Your task to perform on an android device: Open the Play Movies app and select the watchlist tab. Image 0: 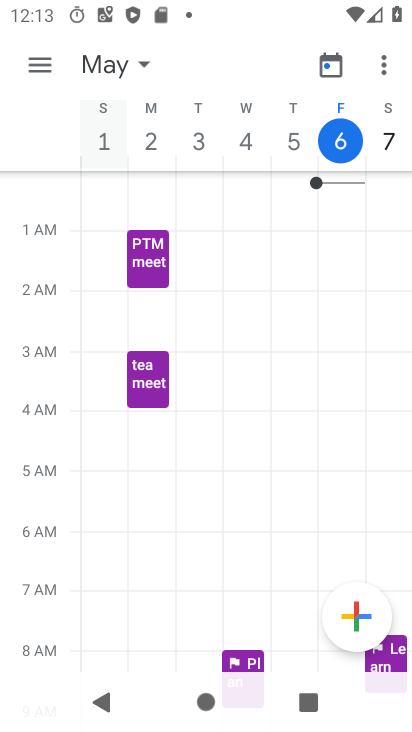
Step 0: press home button
Your task to perform on an android device: Open the Play Movies app and select the watchlist tab. Image 1: 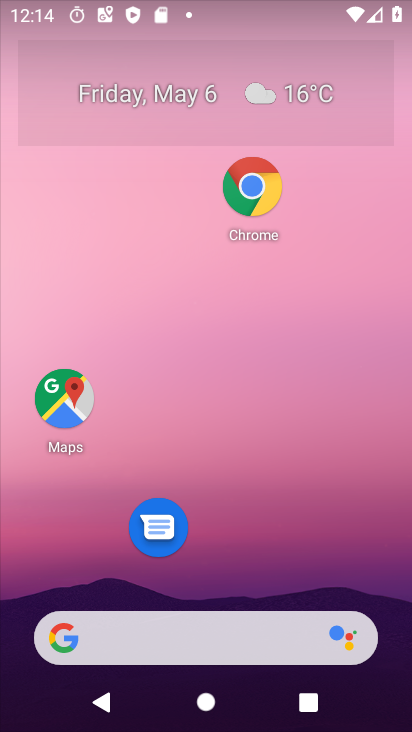
Step 1: drag from (236, 560) to (272, 132)
Your task to perform on an android device: Open the Play Movies app and select the watchlist tab. Image 2: 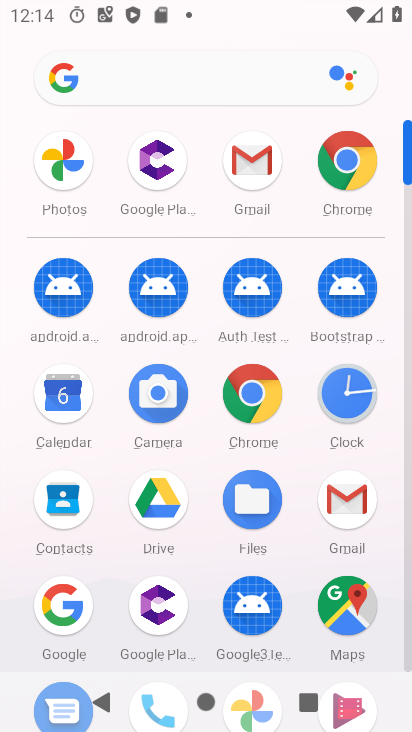
Step 2: drag from (277, 613) to (286, 311)
Your task to perform on an android device: Open the Play Movies app and select the watchlist tab. Image 3: 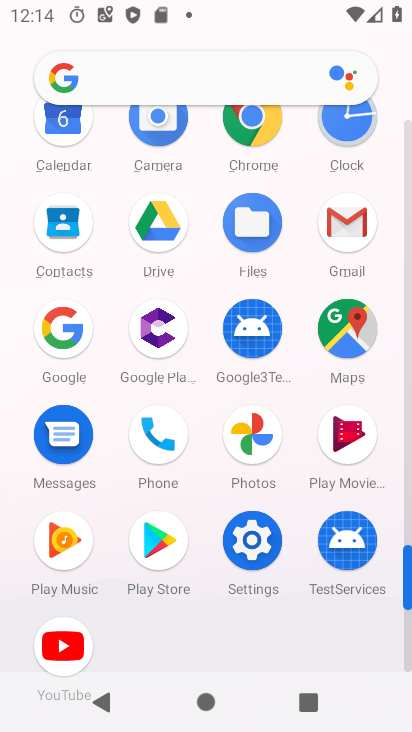
Step 3: click (356, 437)
Your task to perform on an android device: Open the Play Movies app and select the watchlist tab. Image 4: 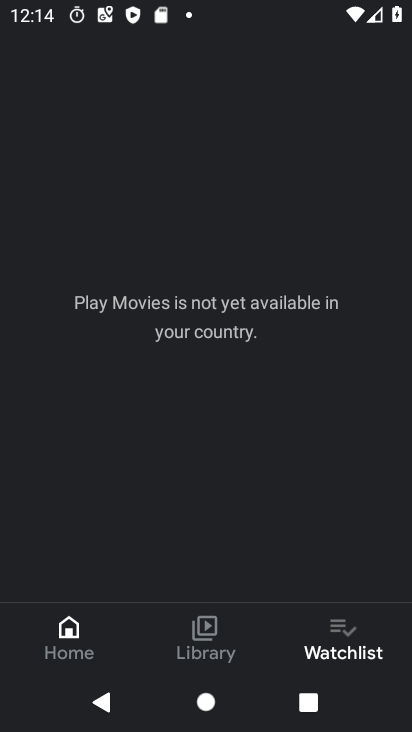
Step 4: click (367, 645)
Your task to perform on an android device: Open the Play Movies app and select the watchlist tab. Image 5: 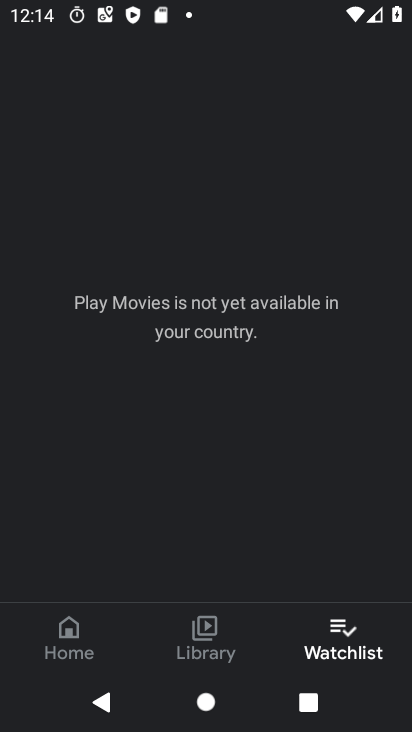
Step 5: task complete